Your task to perform on an android device: Open privacy settings Image 0: 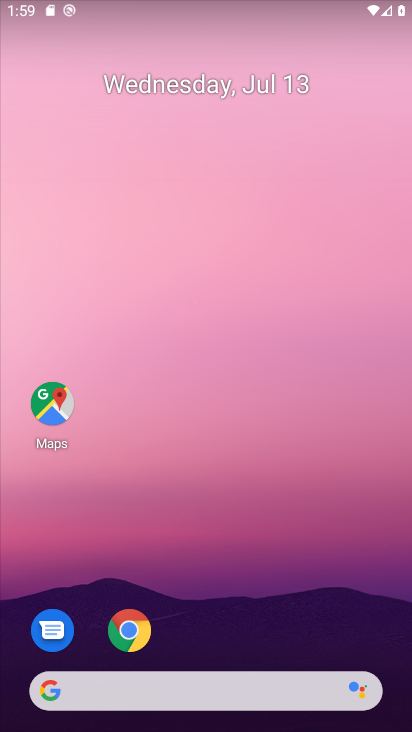
Step 0: drag from (163, 678) to (273, 189)
Your task to perform on an android device: Open privacy settings Image 1: 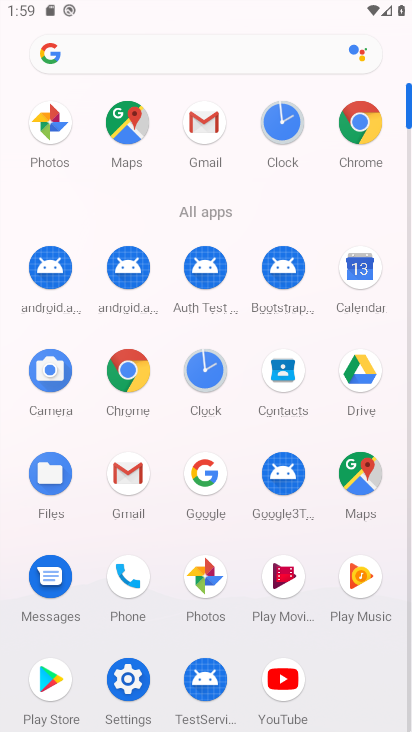
Step 1: click (129, 380)
Your task to perform on an android device: Open privacy settings Image 2: 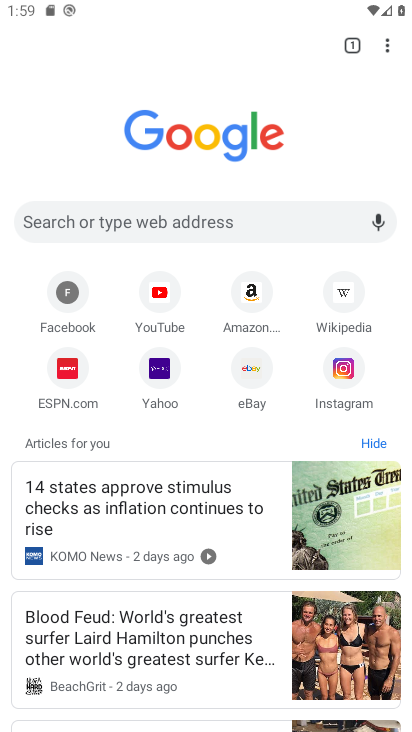
Step 2: drag from (383, 47) to (243, 377)
Your task to perform on an android device: Open privacy settings Image 3: 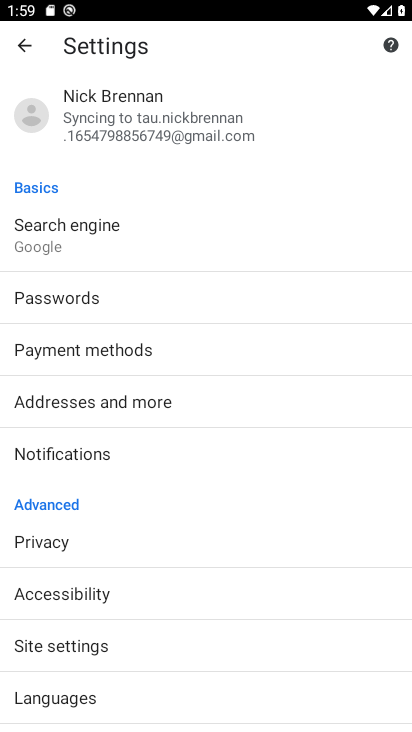
Step 3: click (86, 550)
Your task to perform on an android device: Open privacy settings Image 4: 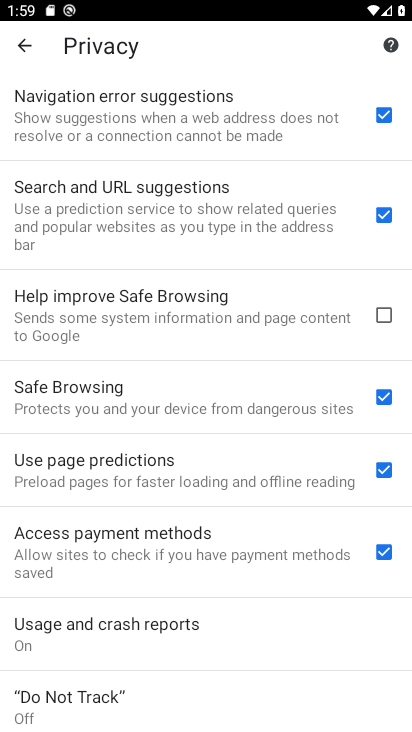
Step 4: task complete